Your task to perform on an android device: What's the weather going to be this weekend? Image 0: 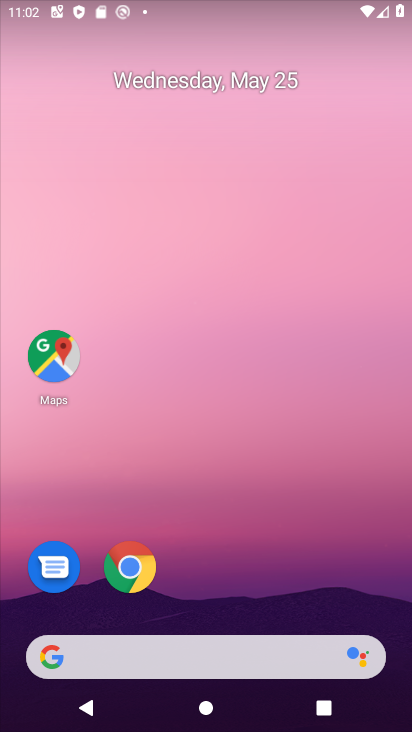
Step 0: click (187, 665)
Your task to perform on an android device: What's the weather going to be this weekend? Image 1: 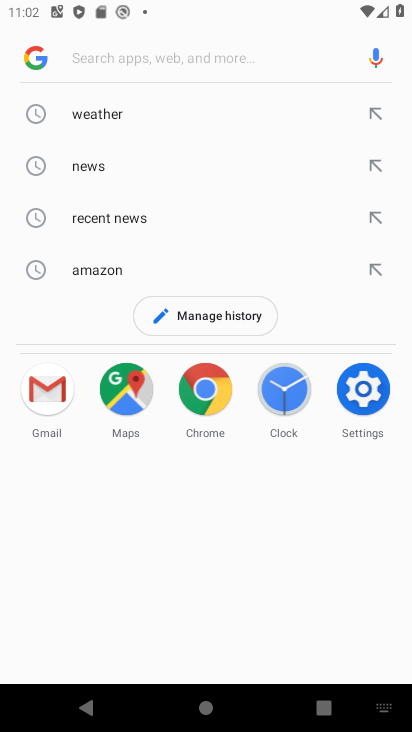
Step 1: click (143, 120)
Your task to perform on an android device: What's the weather going to be this weekend? Image 2: 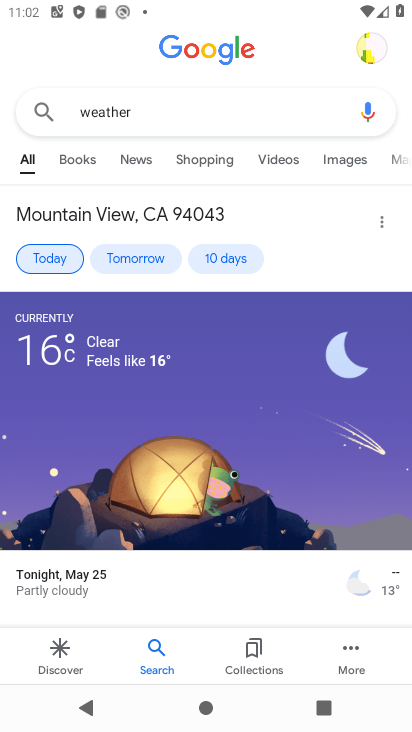
Step 2: click (224, 264)
Your task to perform on an android device: What's the weather going to be this weekend? Image 3: 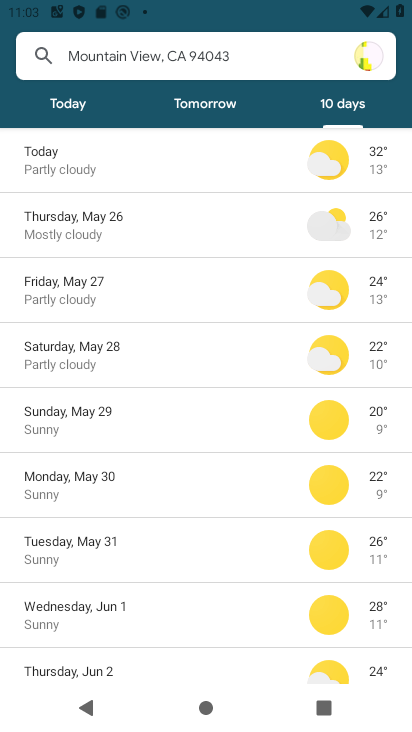
Step 3: task complete